Your task to perform on an android device: Open the Play Movies app and select the watchlist tab. Image 0: 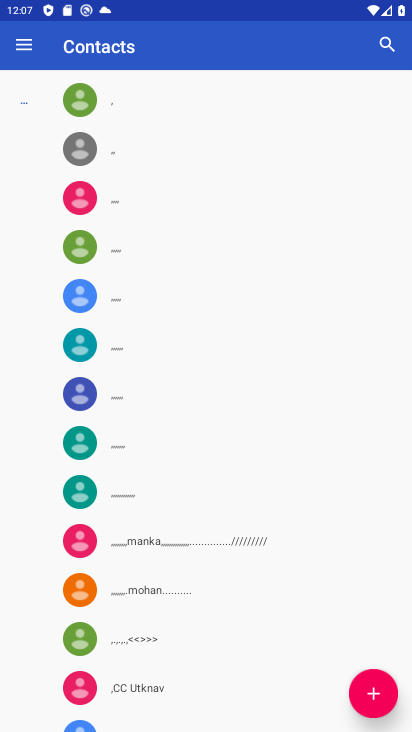
Step 0: press home button
Your task to perform on an android device: Open the Play Movies app and select the watchlist tab. Image 1: 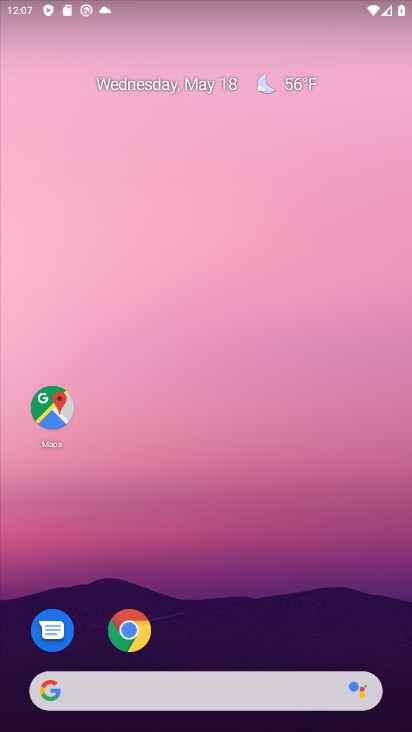
Step 1: drag from (219, 592) to (209, 132)
Your task to perform on an android device: Open the Play Movies app and select the watchlist tab. Image 2: 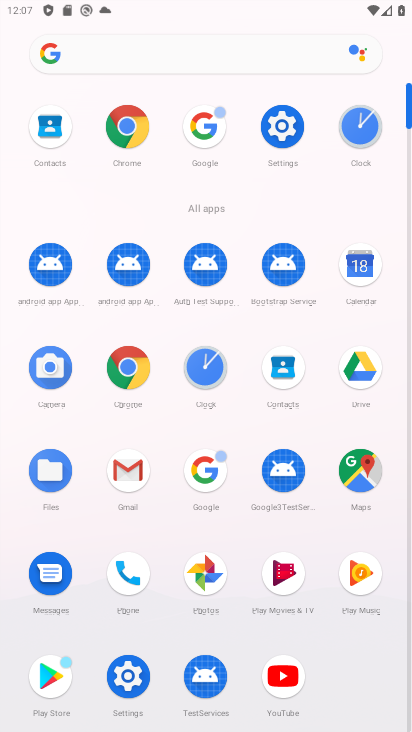
Step 2: click (281, 575)
Your task to perform on an android device: Open the Play Movies app and select the watchlist tab. Image 3: 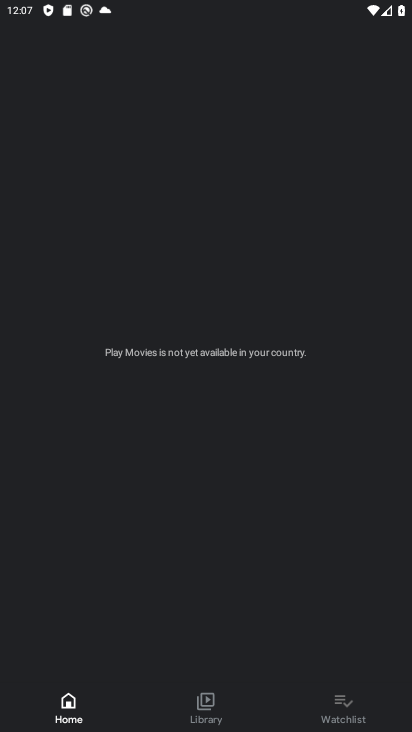
Step 3: click (352, 707)
Your task to perform on an android device: Open the Play Movies app and select the watchlist tab. Image 4: 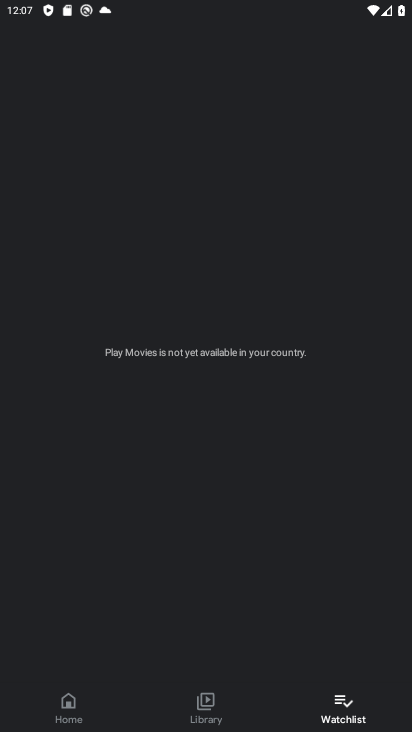
Step 4: task complete